Your task to perform on an android device: find snoozed emails in the gmail app Image 0: 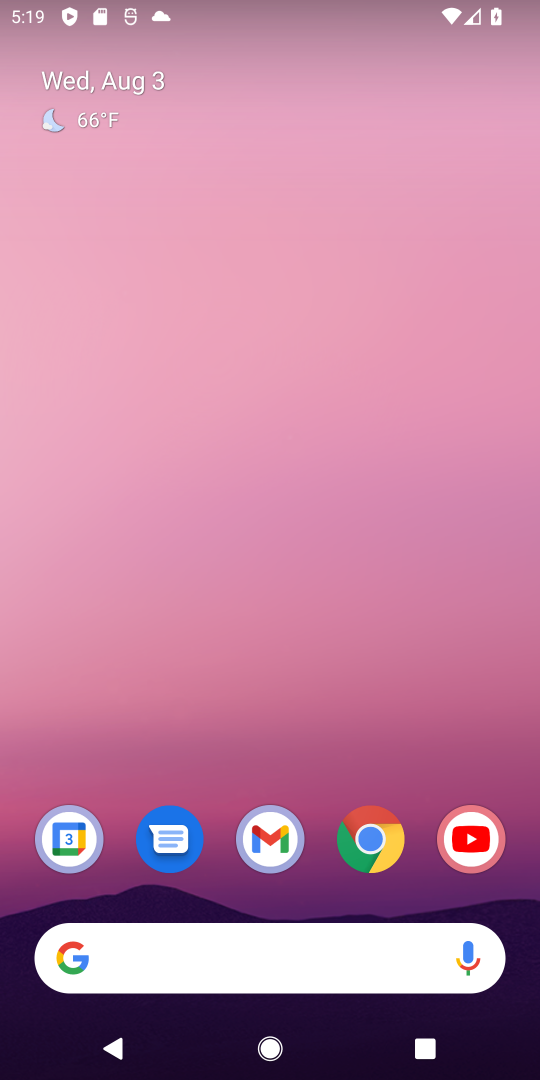
Step 0: click (264, 845)
Your task to perform on an android device: find snoozed emails in the gmail app Image 1: 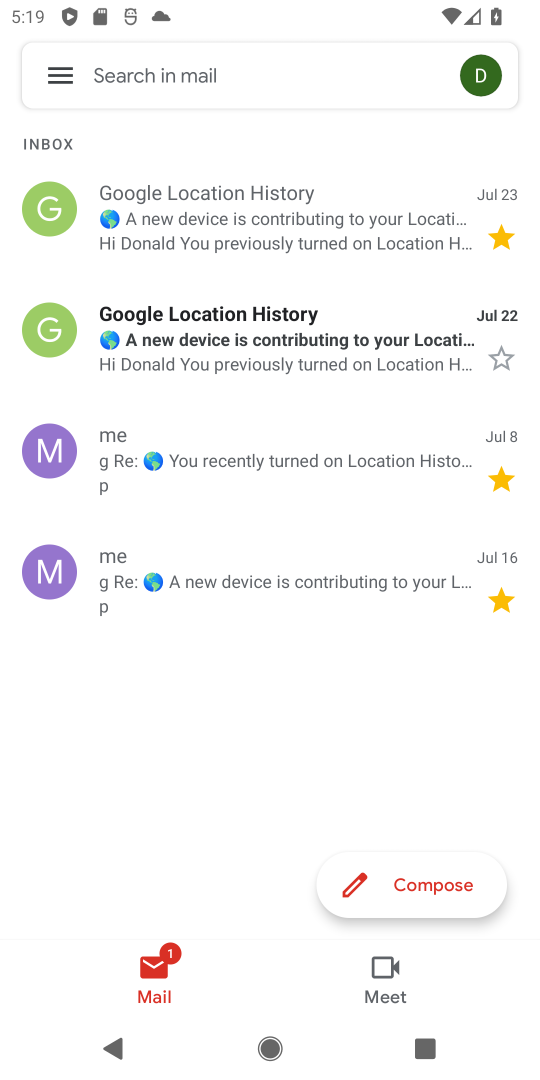
Step 1: click (248, 223)
Your task to perform on an android device: find snoozed emails in the gmail app Image 2: 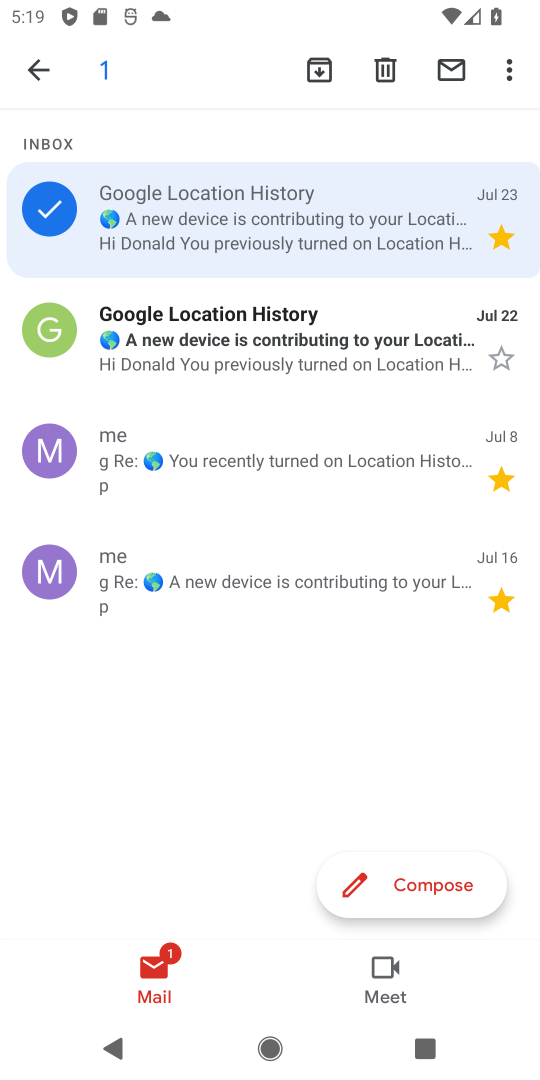
Step 2: click (11, 48)
Your task to perform on an android device: find snoozed emails in the gmail app Image 3: 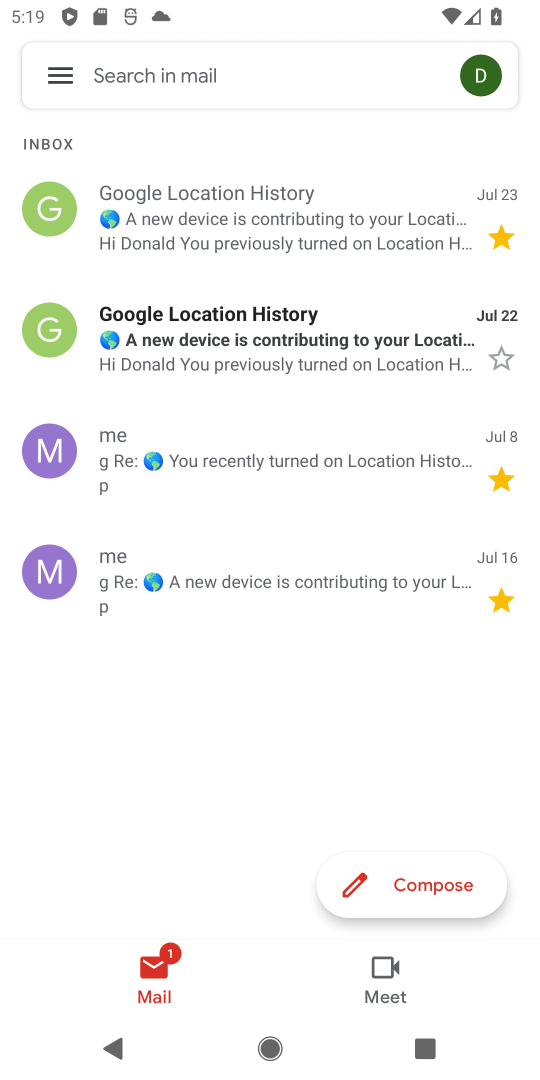
Step 3: click (49, 70)
Your task to perform on an android device: find snoozed emails in the gmail app Image 4: 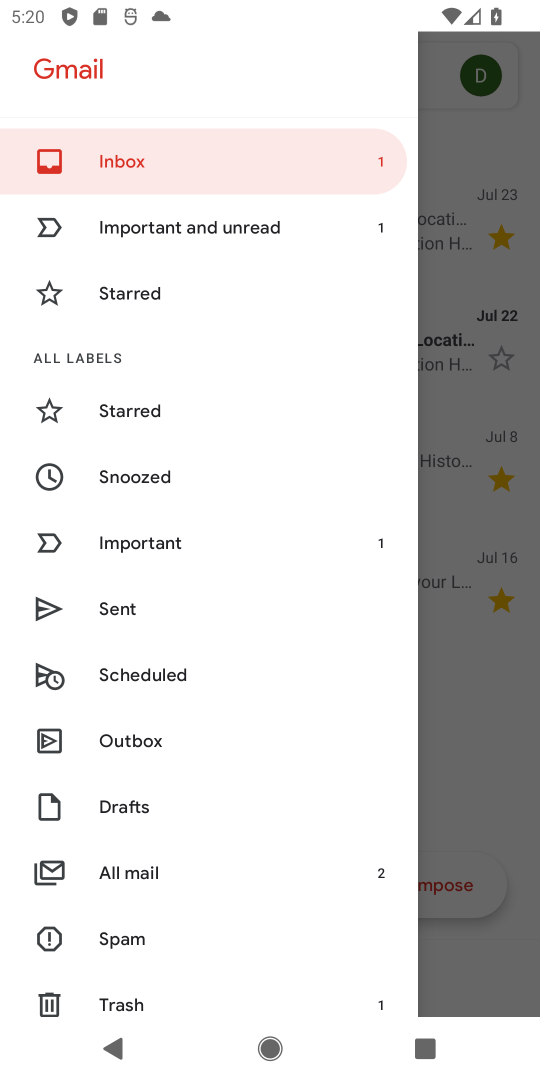
Step 4: click (152, 484)
Your task to perform on an android device: find snoozed emails in the gmail app Image 5: 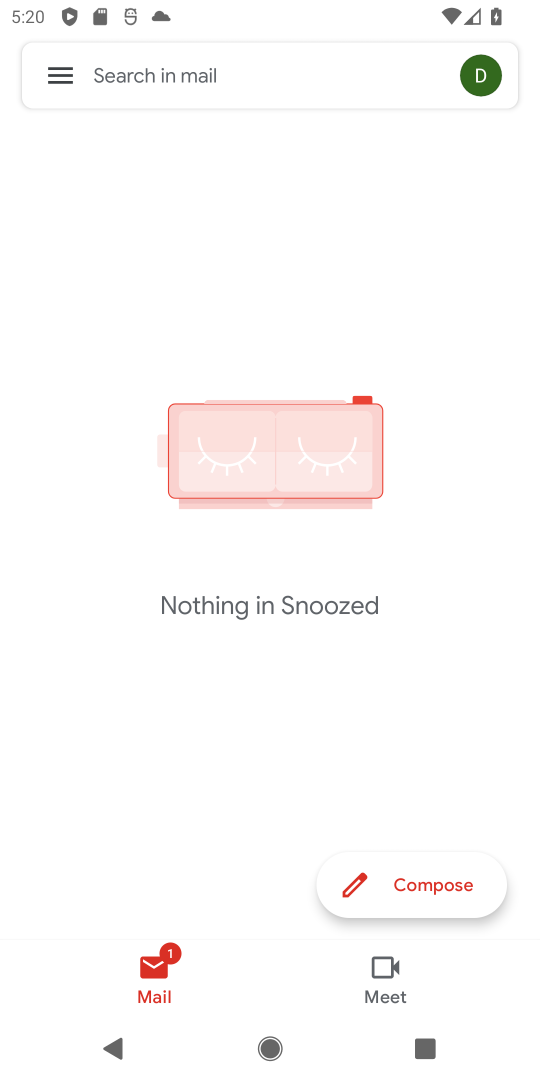
Step 5: task complete